Your task to perform on an android device: turn off data saver in the chrome app Image 0: 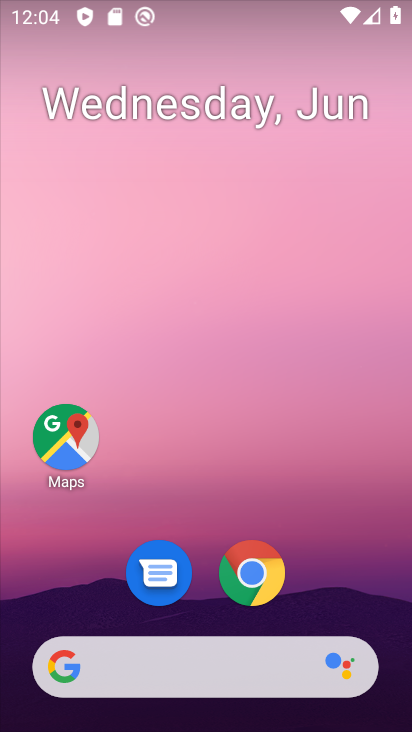
Step 0: click (257, 586)
Your task to perform on an android device: turn off data saver in the chrome app Image 1: 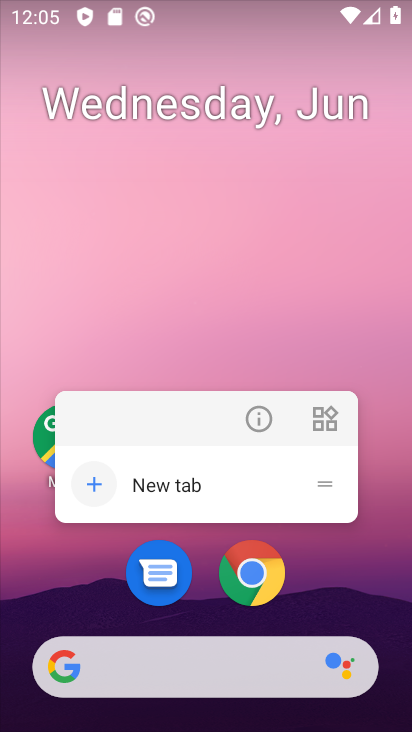
Step 1: click (257, 574)
Your task to perform on an android device: turn off data saver in the chrome app Image 2: 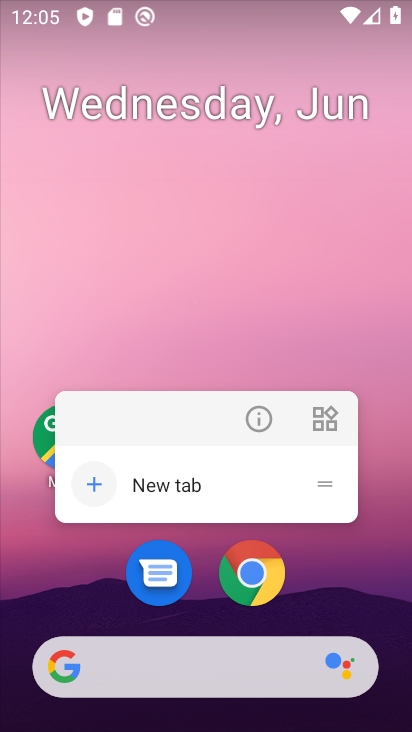
Step 2: click (254, 573)
Your task to perform on an android device: turn off data saver in the chrome app Image 3: 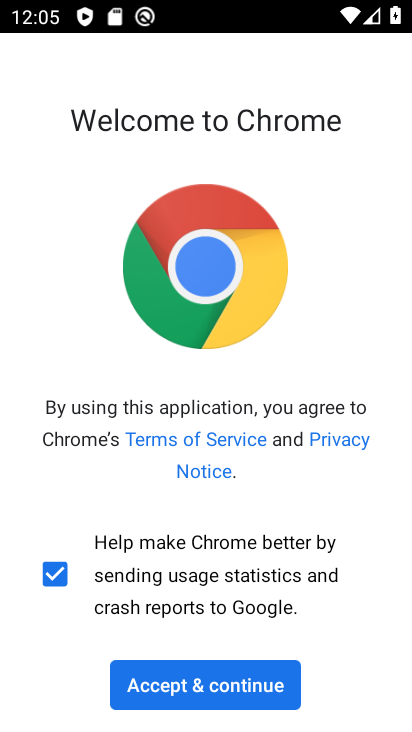
Step 3: click (234, 705)
Your task to perform on an android device: turn off data saver in the chrome app Image 4: 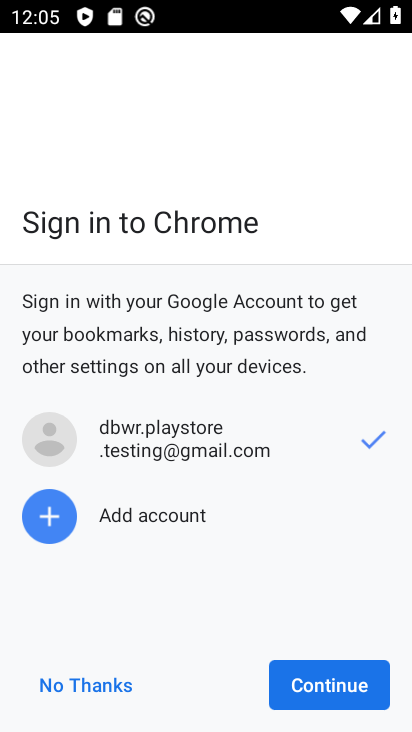
Step 4: click (313, 678)
Your task to perform on an android device: turn off data saver in the chrome app Image 5: 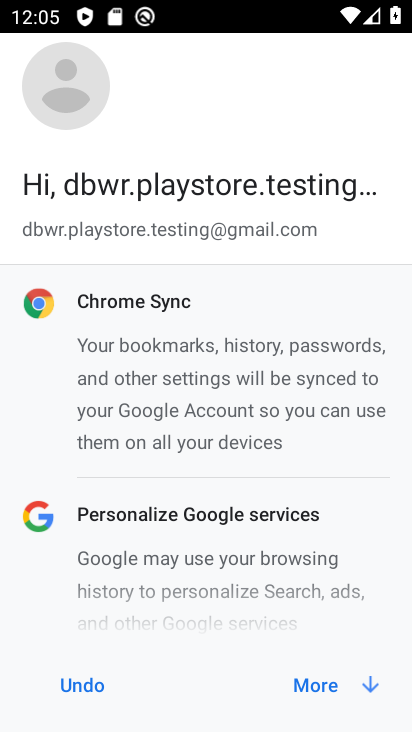
Step 5: click (323, 681)
Your task to perform on an android device: turn off data saver in the chrome app Image 6: 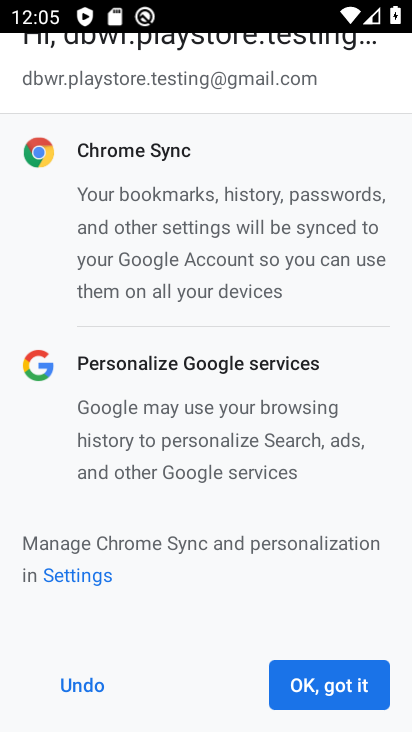
Step 6: click (319, 680)
Your task to perform on an android device: turn off data saver in the chrome app Image 7: 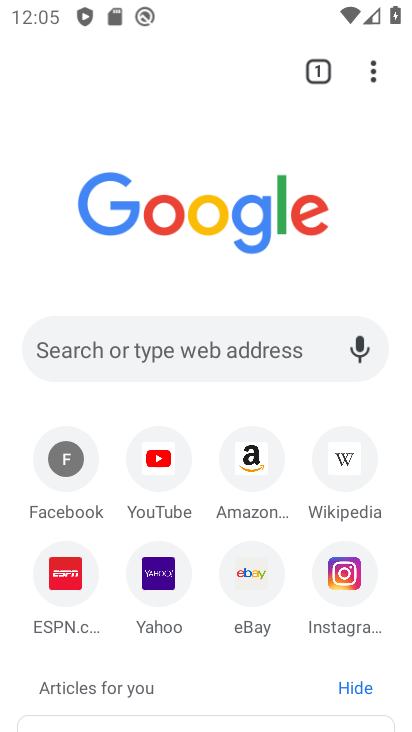
Step 7: drag from (388, 82) to (193, 581)
Your task to perform on an android device: turn off data saver in the chrome app Image 8: 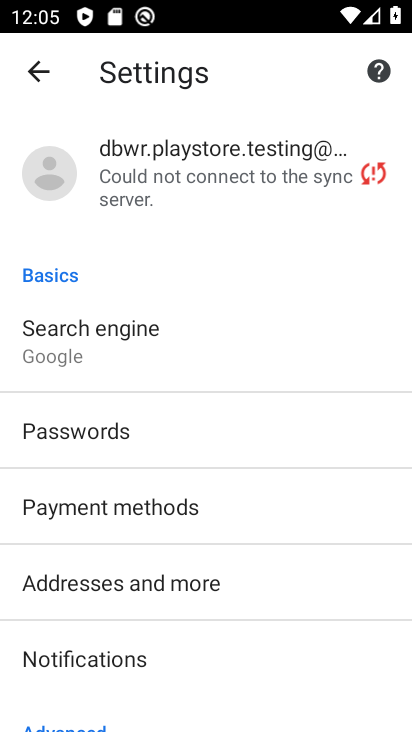
Step 8: drag from (122, 692) to (264, 245)
Your task to perform on an android device: turn off data saver in the chrome app Image 9: 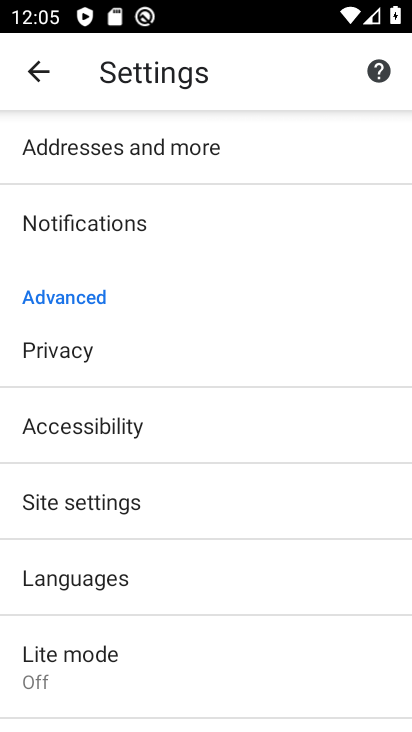
Step 9: click (141, 657)
Your task to perform on an android device: turn off data saver in the chrome app Image 10: 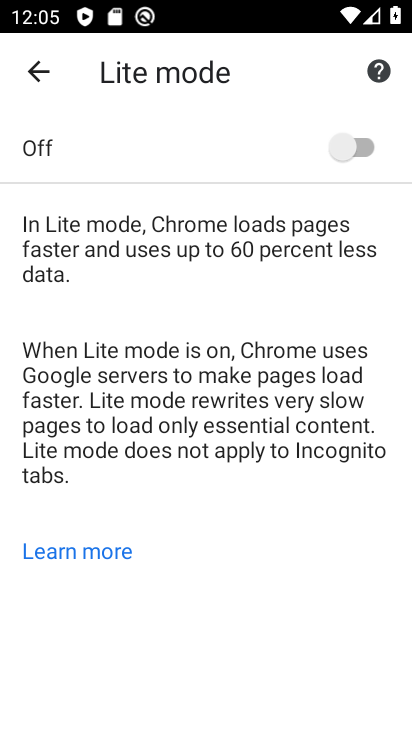
Step 10: task complete